Your task to perform on an android device: Open calendar and show me the third week of next month Image 0: 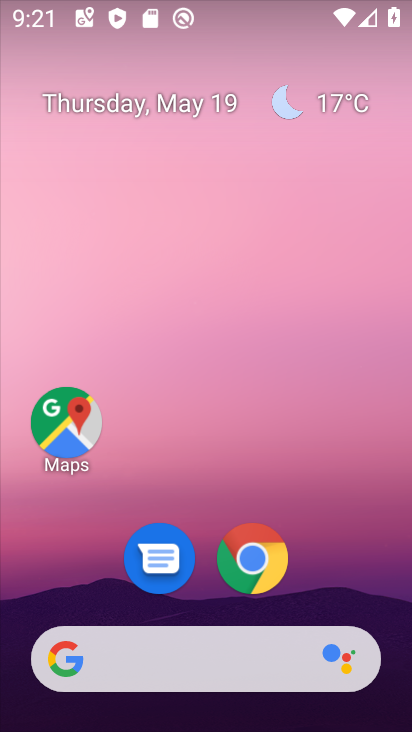
Step 0: drag from (217, 720) to (217, 325)
Your task to perform on an android device: Open calendar and show me the third week of next month Image 1: 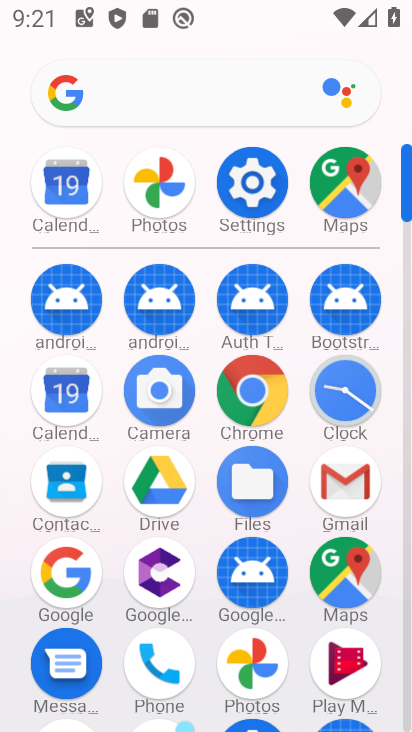
Step 1: click (63, 391)
Your task to perform on an android device: Open calendar and show me the third week of next month Image 2: 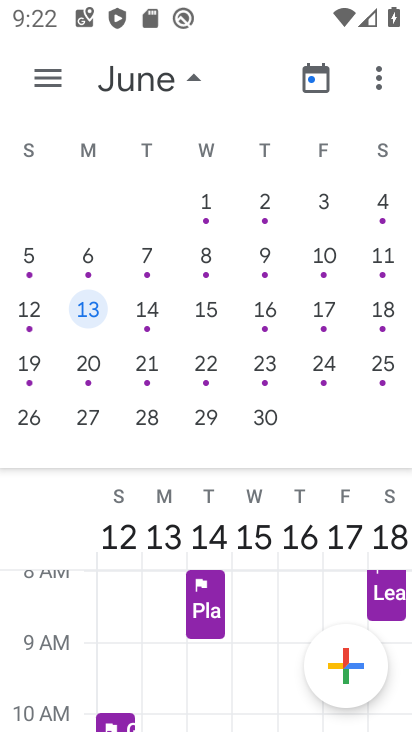
Step 2: click (89, 368)
Your task to perform on an android device: Open calendar and show me the third week of next month Image 3: 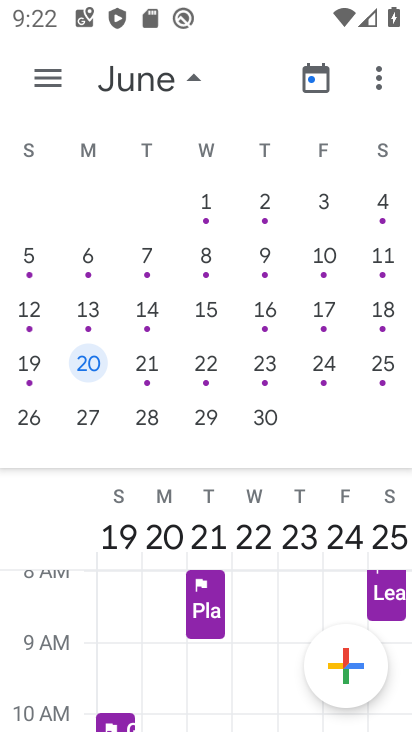
Step 3: click (89, 368)
Your task to perform on an android device: Open calendar and show me the third week of next month Image 4: 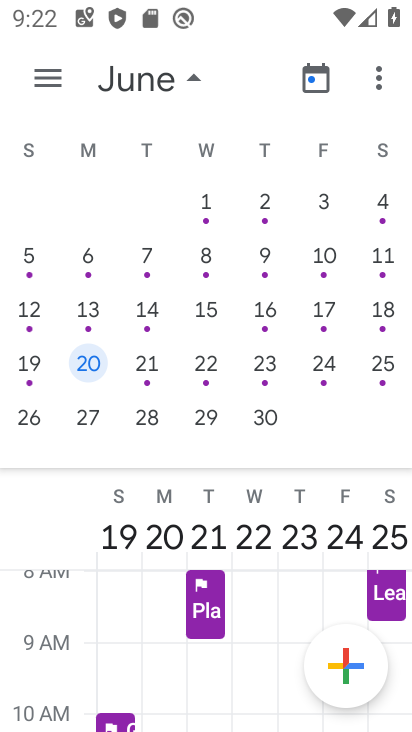
Step 4: task complete